Your task to perform on an android device: Open ESPN.com Image 0: 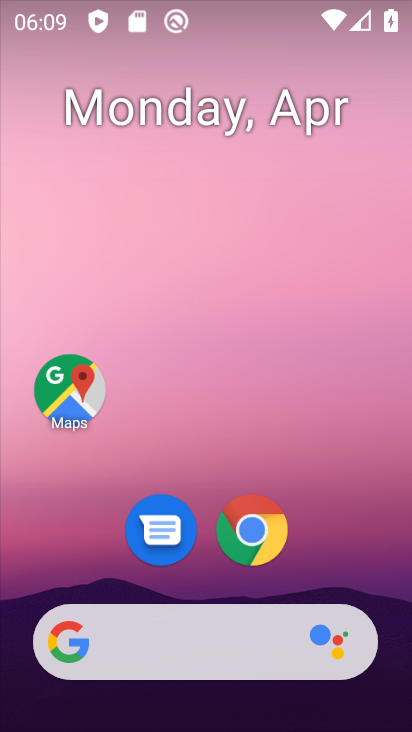
Step 0: press home button
Your task to perform on an android device: Open ESPN.com Image 1: 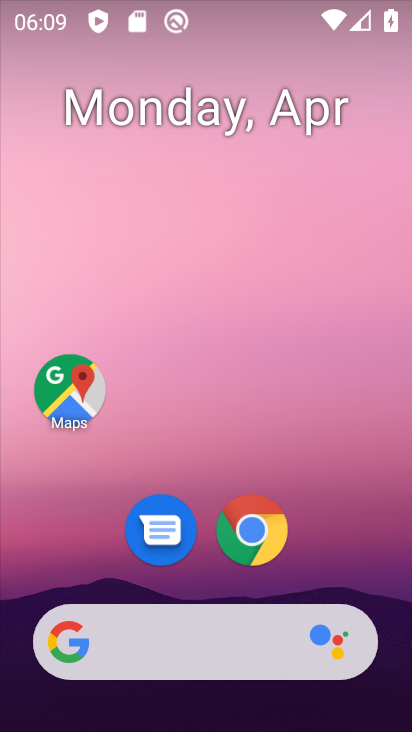
Step 1: drag from (200, 584) to (270, 57)
Your task to perform on an android device: Open ESPN.com Image 2: 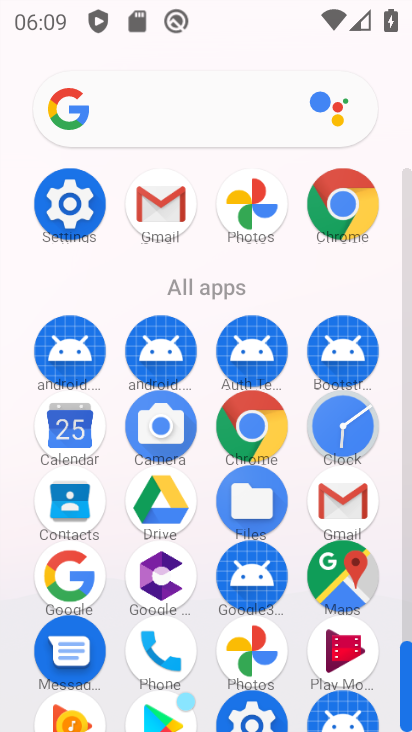
Step 2: click (250, 421)
Your task to perform on an android device: Open ESPN.com Image 3: 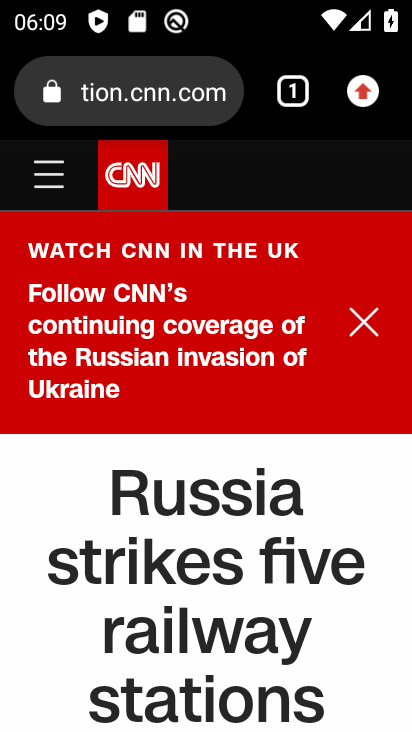
Step 3: click (286, 85)
Your task to perform on an android device: Open ESPN.com Image 4: 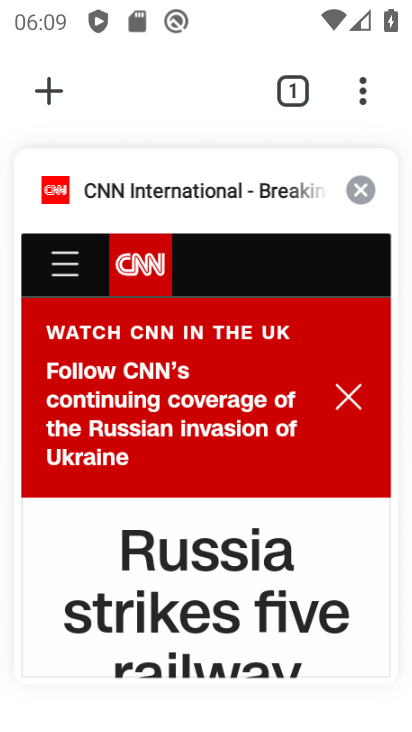
Step 4: click (358, 187)
Your task to perform on an android device: Open ESPN.com Image 5: 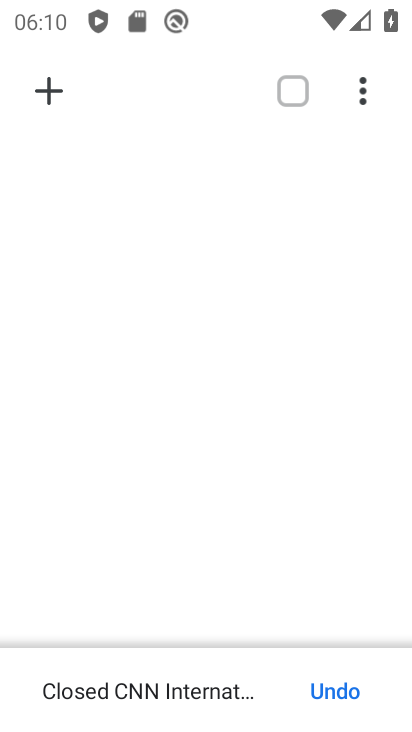
Step 5: click (54, 94)
Your task to perform on an android device: Open ESPN.com Image 6: 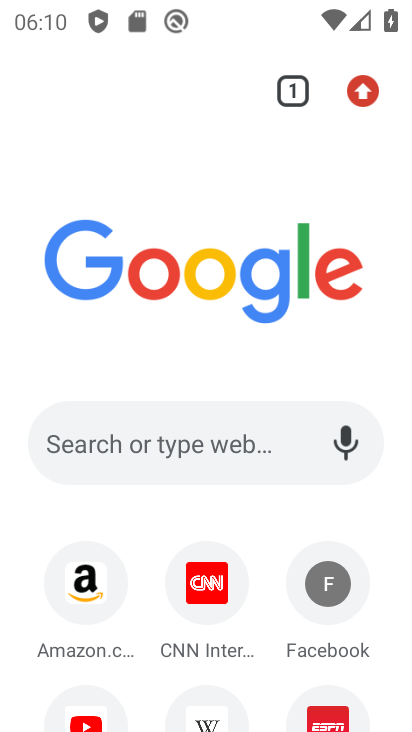
Step 6: click (323, 711)
Your task to perform on an android device: Open ESPN.com Image 7: 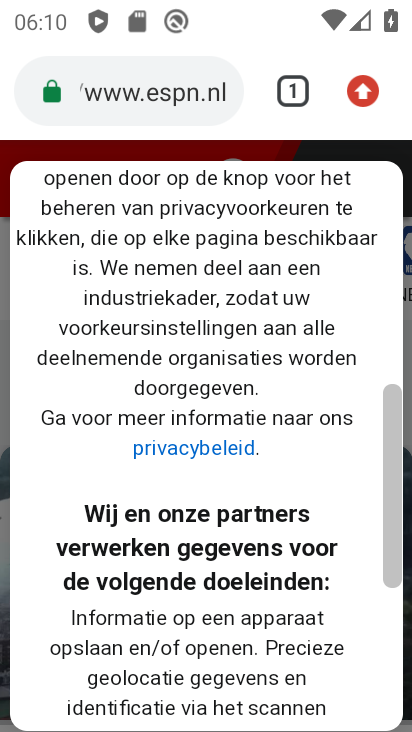
Step 7: drag from (234, 647) to (276, 316)
Your task to perform on an android device: Open ESPN.com Image 8: 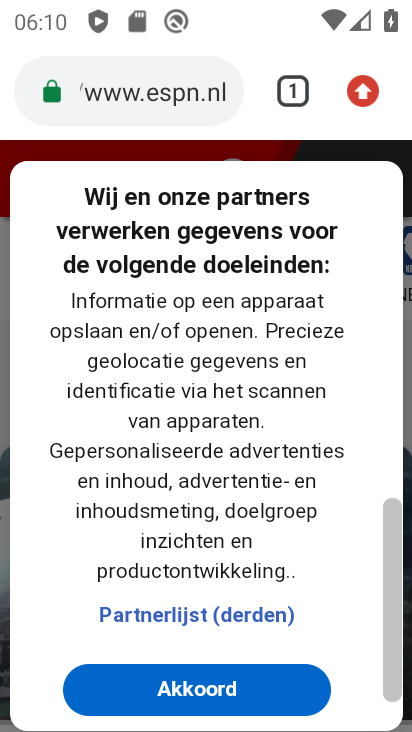
Step 8: click (212, 688)
Your task to perform on an android device: Open ESPN.com Image 9: 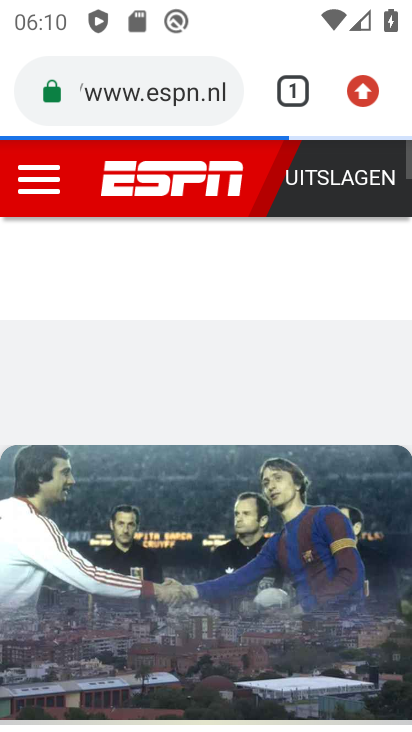
Step 9: task complete